Your task to perform on an android device: Set the phone to "Do not disturb". Image 0: 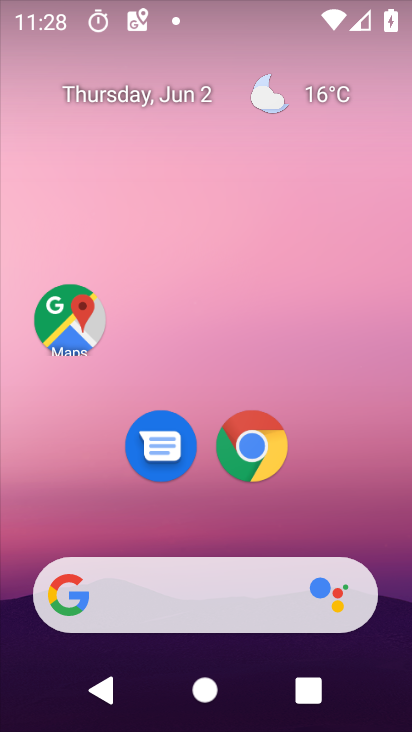
Step 0: drag from (379, 533) to (392, 184)
Your task to perform on an android device: Set the phone to "Do not disturb". Image 1: 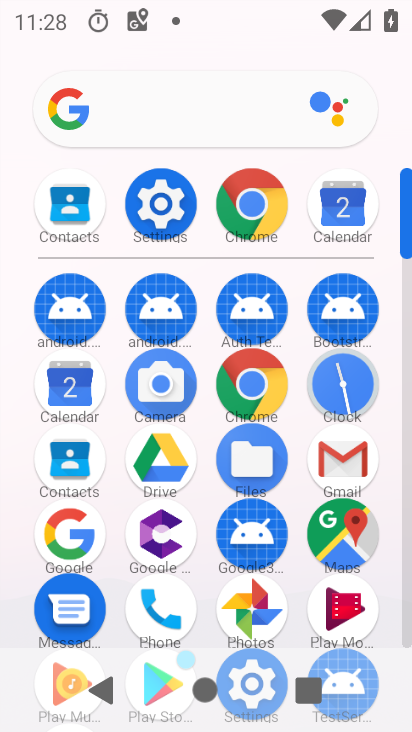
Step 1: click (171, 223)
Your task to perform on an android device: Set the phone to "Do not disturb". Image 2: 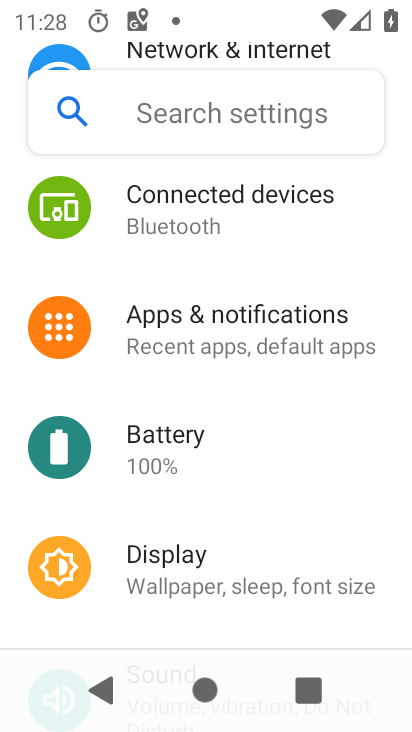
Step 2: drag from (352, 251) to (372, 362)
Your task to perform on an android device: Set the phone to "Do not disturb". Image 3: 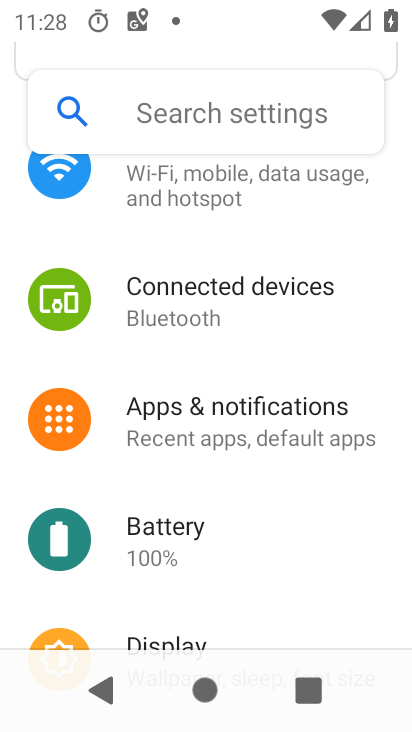
Step 3: drag from (372, 242) to (379, 371)
Your task to perform on an android device: Set the phone to "Do not disturb". Image 4: 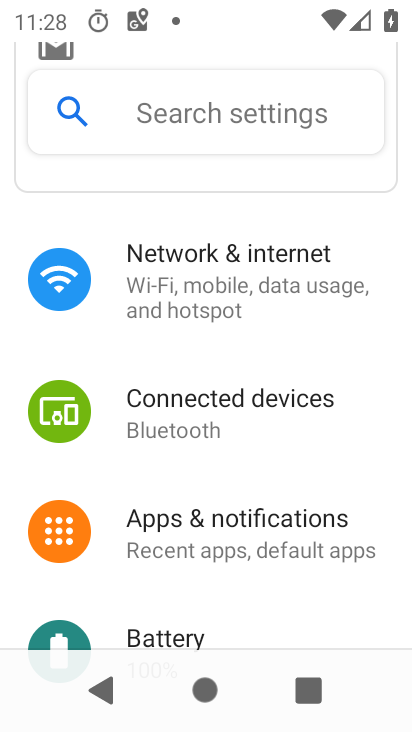
Step 4: drag from (374, 446) to (368, 313)
Your task to perform on an android device: Set the phone to "Do not disturb". Image 5: 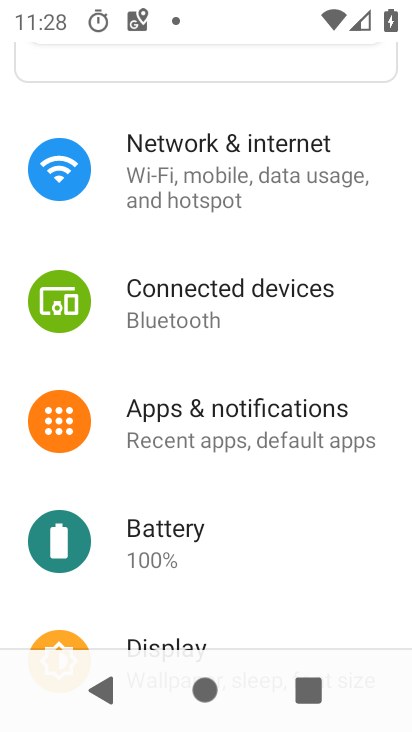
Step 5: drag from (368, 465) to (376, 335)
Your task to perform on an android device: Set the phone to "Do not disturb". Image 6: 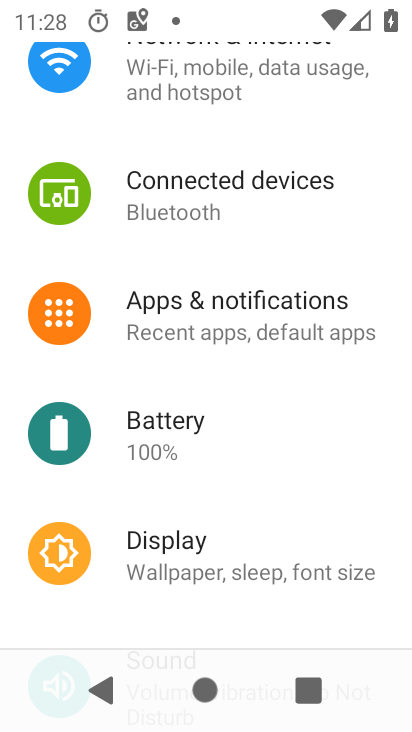
Step 6: drag from (371, 453) to (369, 350)
Your task to perform on an android device: Set the phone to "Do not disturb". Image 7: 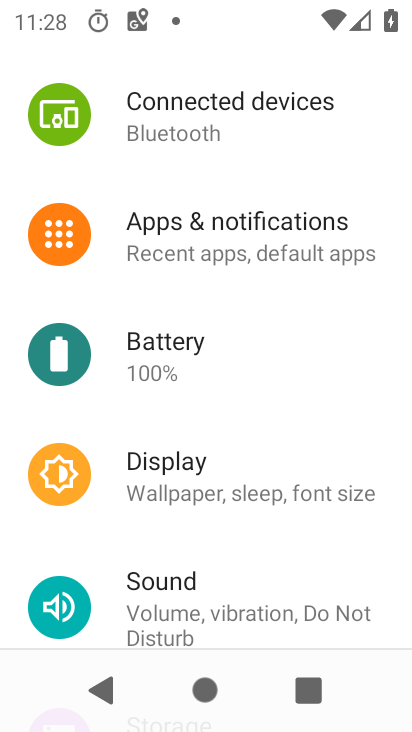
Step 7: drag from (372, 461) to (377, 359)
Your task to perform on an android device: Set the phone to "Do not disturb". Image 8: 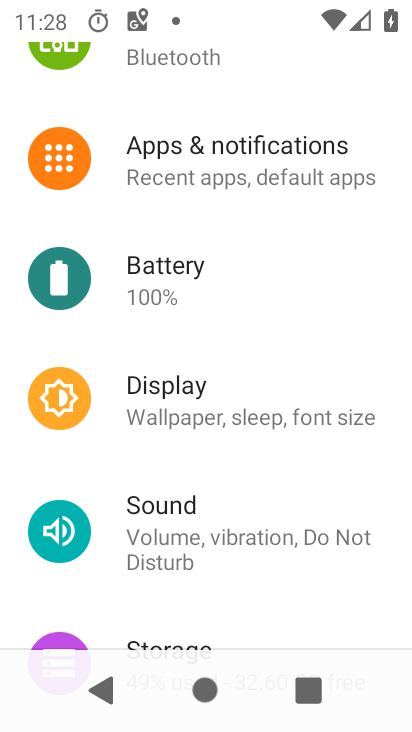
Step 8: drag from (376, 436) to (373, 355)
Your task to perform on an android device: Set the phone to "Do not disturb". Image 9: 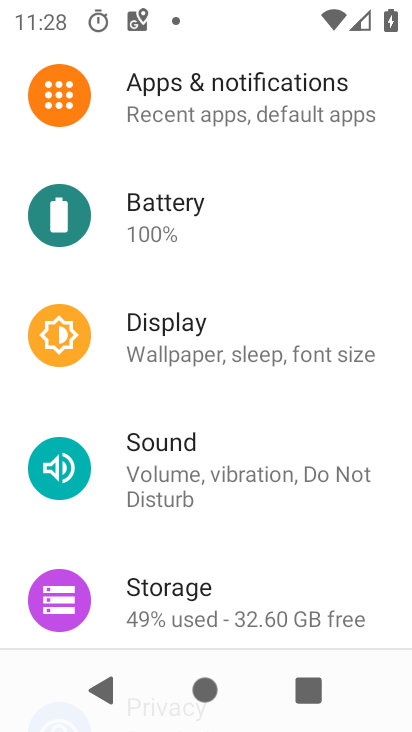
Step 9: drag from (377, 480) to (372, 363)
Your task to perform on an android device: Set the phone to "Do not disturb". Image 10: 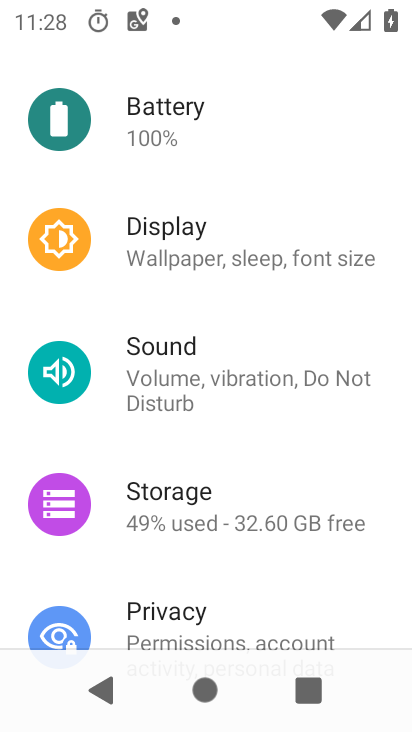
Step 10: click (298, 389)
Your task to perform on an android device: Set the phone to "Do not disturb". Image 11: 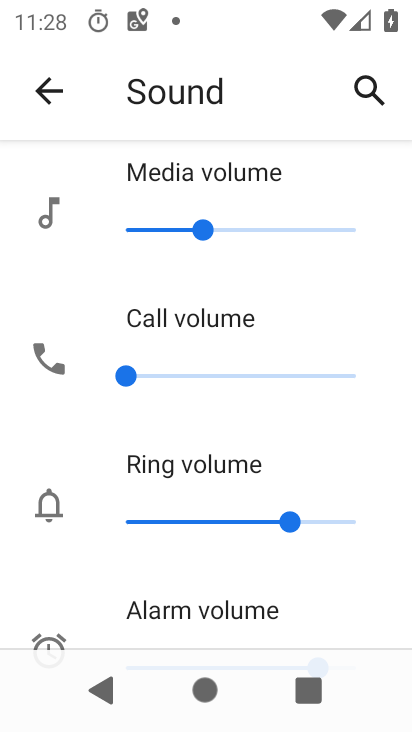
Step 11: drag from (350, 472) to (351, 383)
Your task to perform on an android device: Set the phone to "Do not disturb". Image 12: 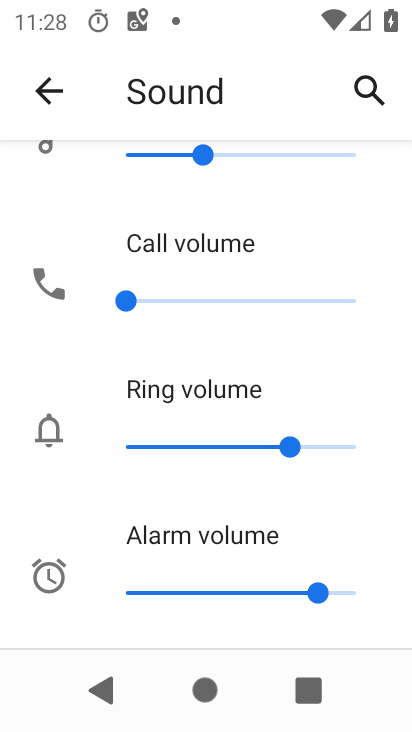
Step 12: drag from (346, 475) to (337, 393)
Your task to perform on an android device: Set the phone to "Do not disturb". Image 13: 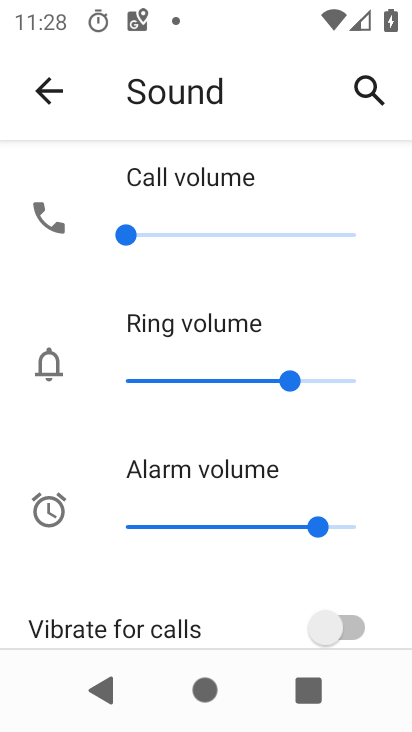
Step 13: drag from (351, 542) to (352, 422)
Your task to perform on an android device: Set the phone to "Do not disturb". Image 14: 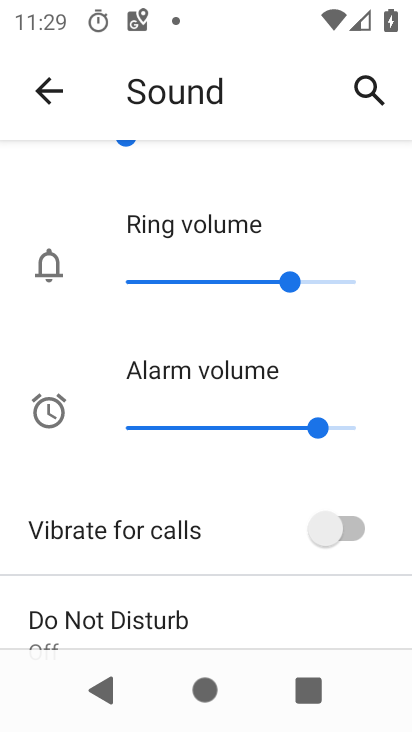
Step 14: drag from (353, 561) to (360, 419)
Your task to perform on an android device: Set the phone to "Do not disturb". Image 15: 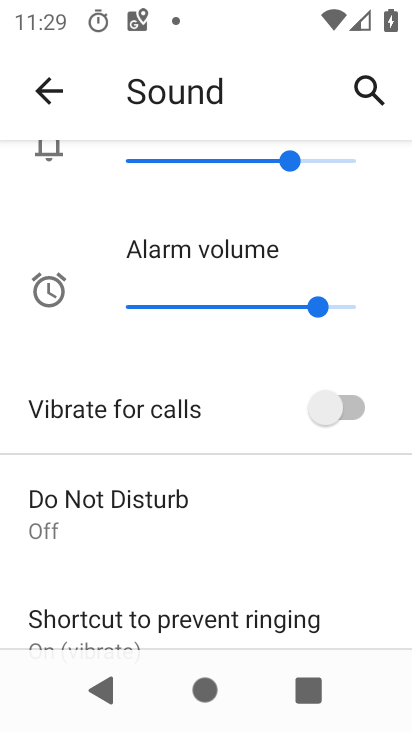
Step 15: drag from (353, 496) to (353, 458)
Your task to perform on an android device: Set the phone to "Do not disturb". Image 16: 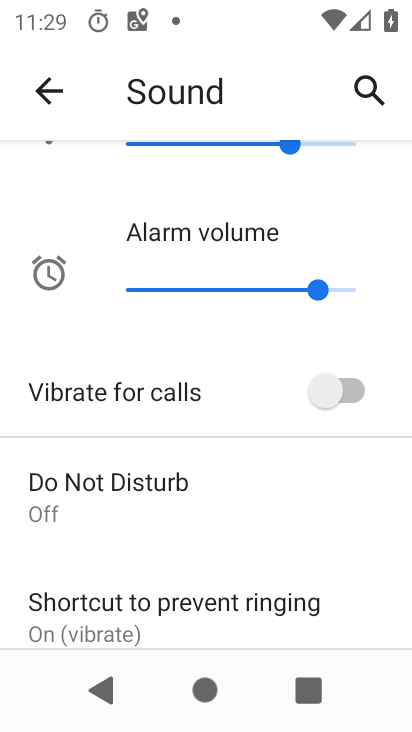
Step 16: click (169, 497)
Your task to perform on an android device: Set the phone to "Do not disturb". Image 17: 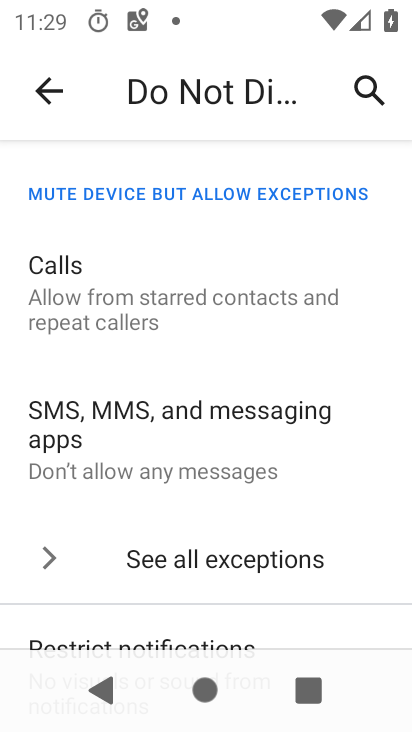
Step 17: drag from (281, 535) to (281, 440)
Your task to perform on an android device: Set the phone to "Do not disturb". Image 18: 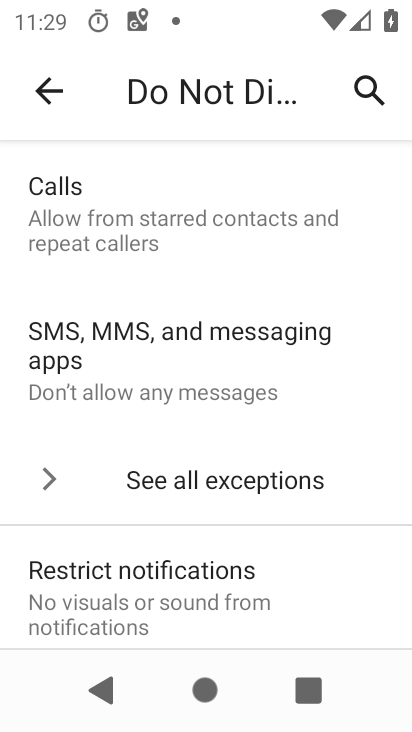
Step 18: drag from (292, 542) to (304, 410)
Your task to perform on an android device: Set the phone to "Do not disturb". Image 19: 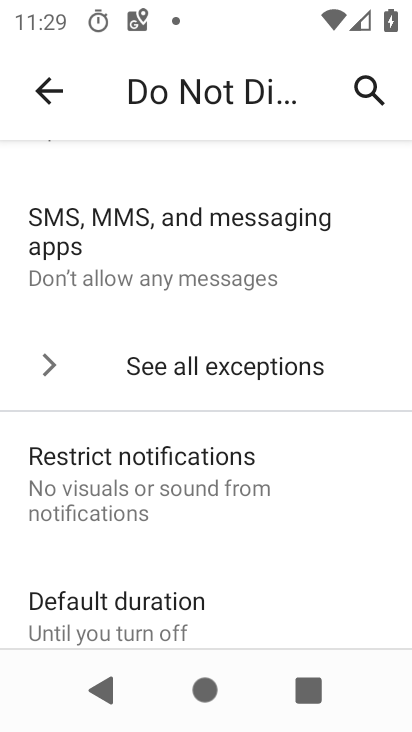
Step 19: drag from (315, 547) to (326, 500)
Your task to perform on an android device: Set the phone to "Do not disturb". Image 20: 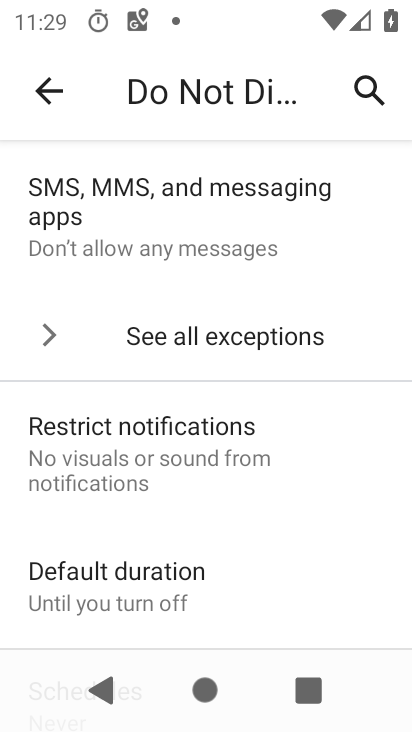
Step 20: drag from (338, 555) to (340, 358)
Your task to perform on an android device: Set the phone to "Do not disturb". Image 21: 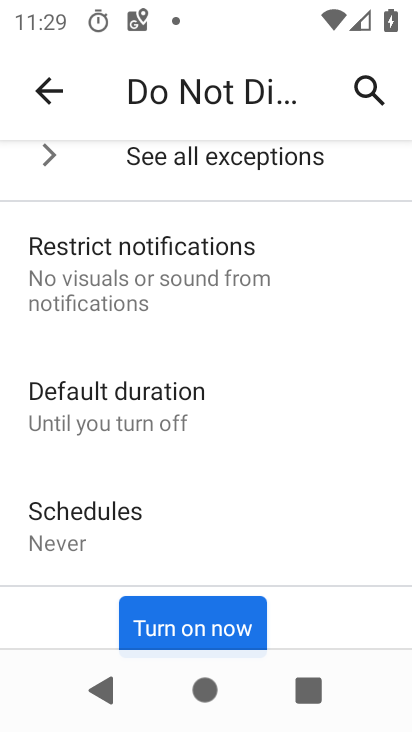
Step 21: drag from (340, 538) to (340, 442)
Your task to perform on an android device: Set the phone to "Do not disturb". Image 22: 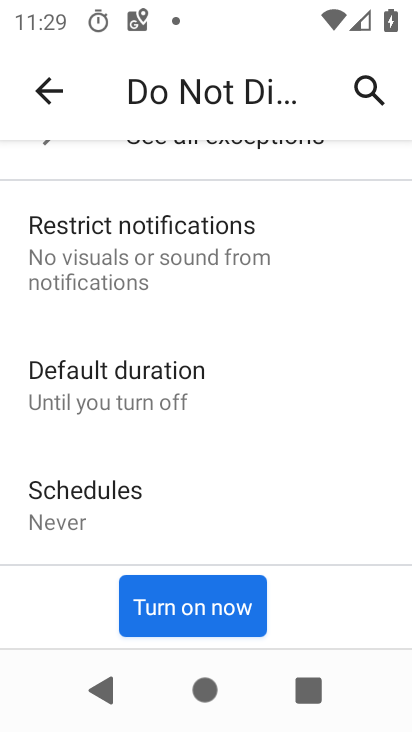
Step 22: click (236, 615)
Your task to perform on an android device: Set the phone to "Do not disturb". Image 23: 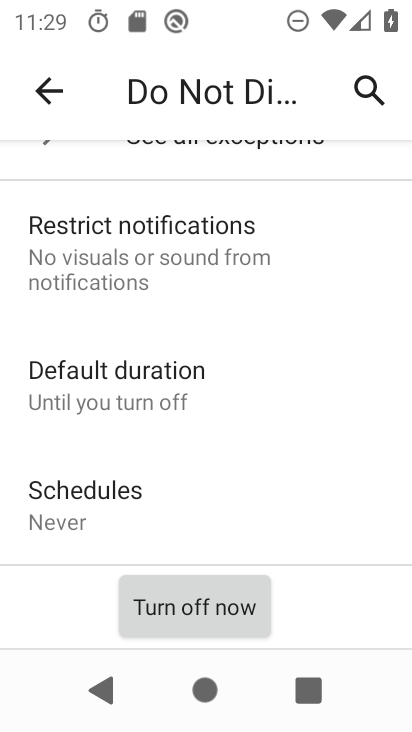
Step 23: task complete